Your task to perform on an android device: toggle wifi Image 0: 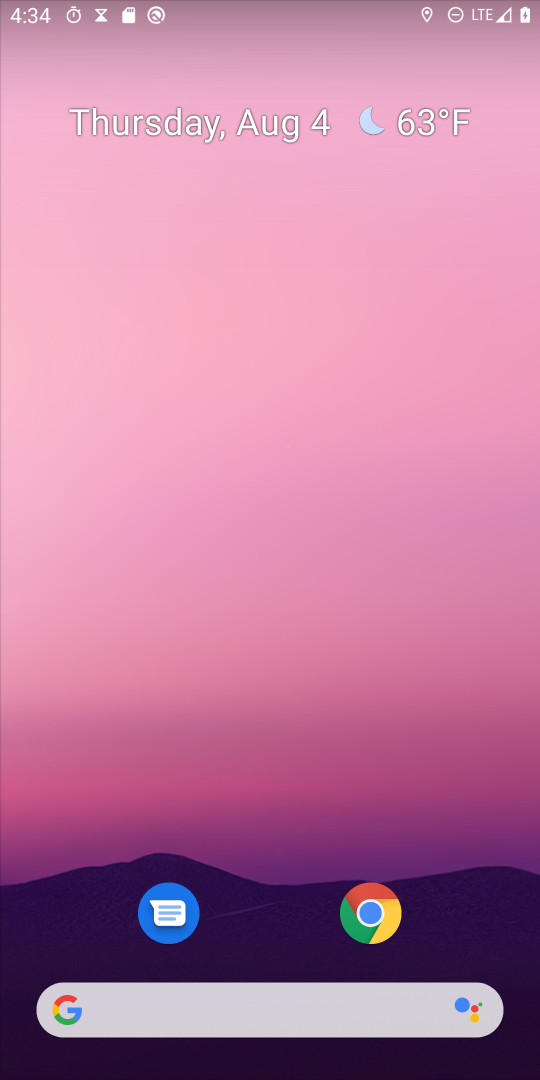
Step 0: drag from (360, 984) to (489, 49)
Your task to perform on an android device: toggle wifi Image 1: 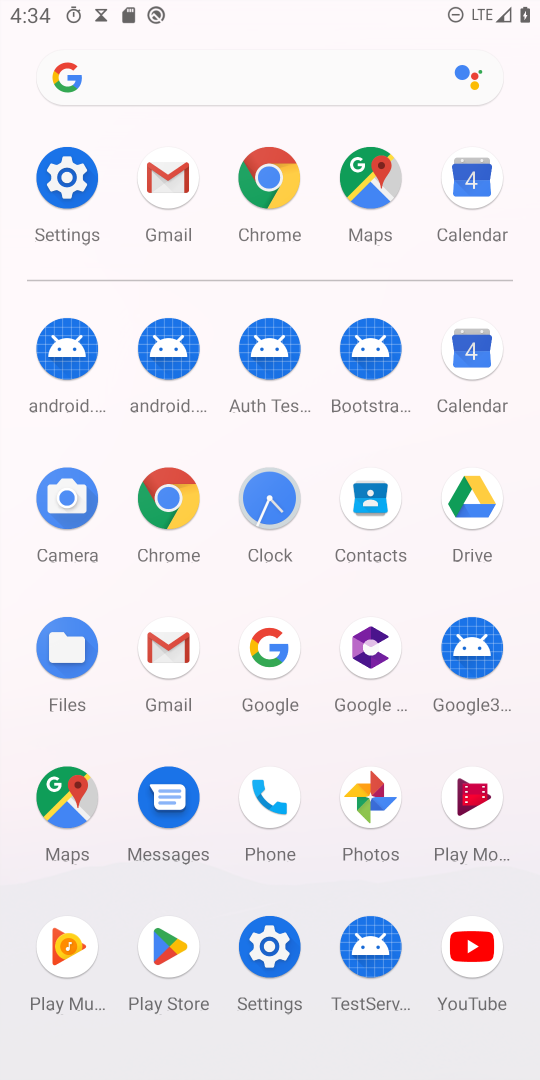
Step 1: click (58, 190)
Your task to perform on an android device: toggle wifi Image 2: 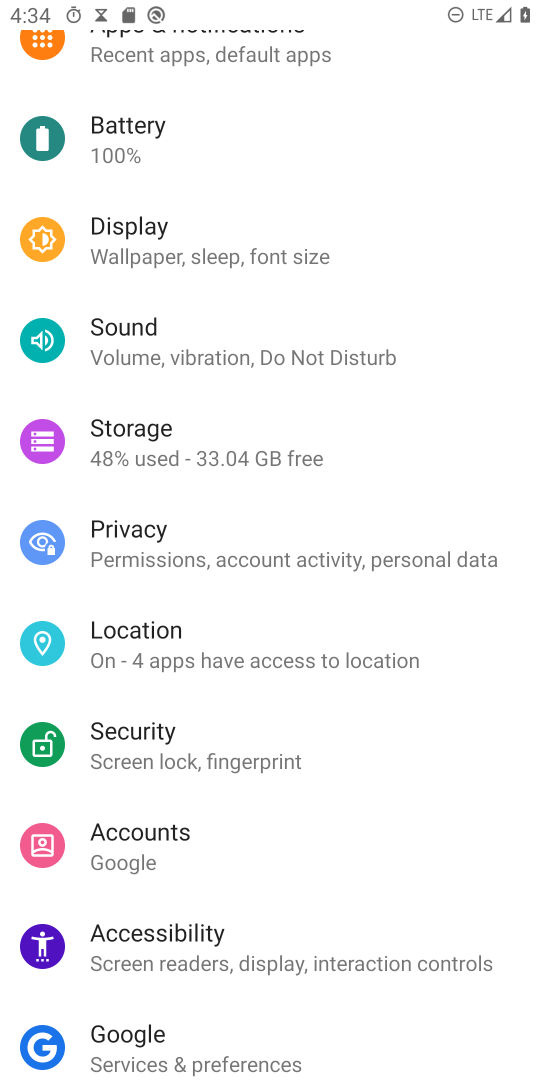
Step 2: drag from (239, 143) to (237, 495)
Your task to perform on an android device: toggle wifi Image 3: 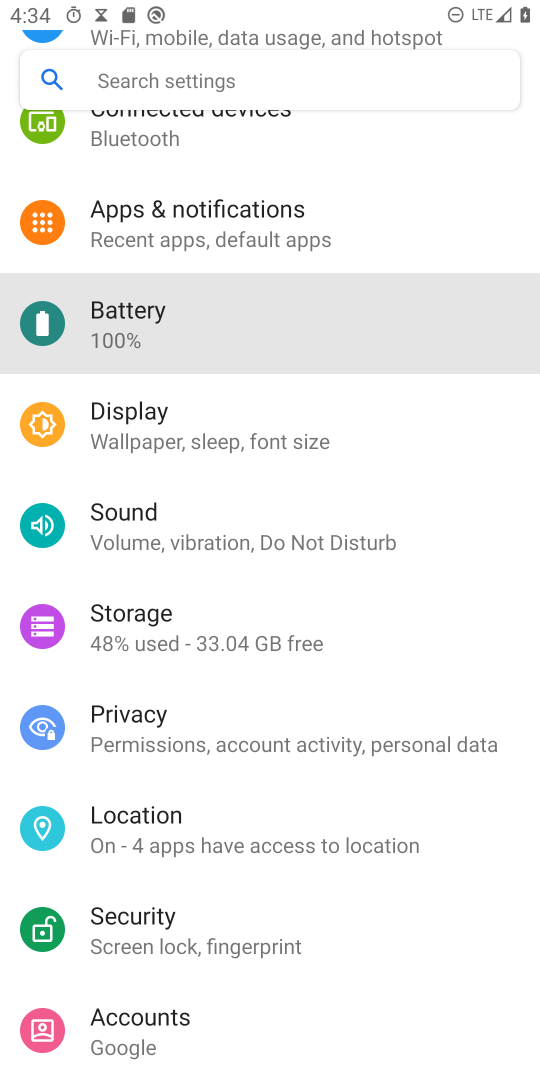
Step 3: click (315, 903)
Your task to perform on an android device: toggle wifi Image 4: 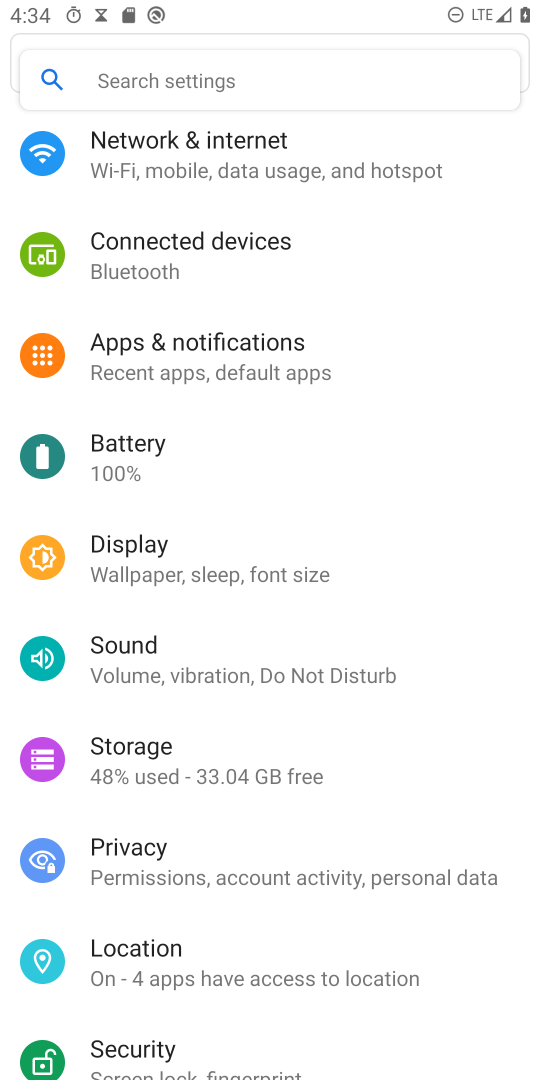
Step 4: click (336, 183)
Your task to perform on an android device: toggle wifi Image 5: 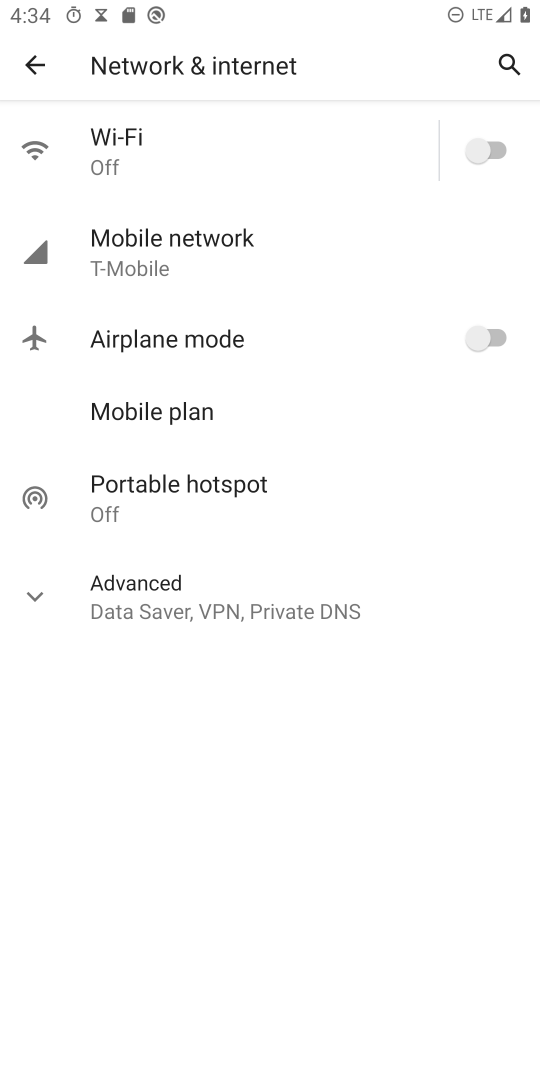
Step 5: click (492, 146)
Your task to perform on an android device: toggle wifi Image 6: 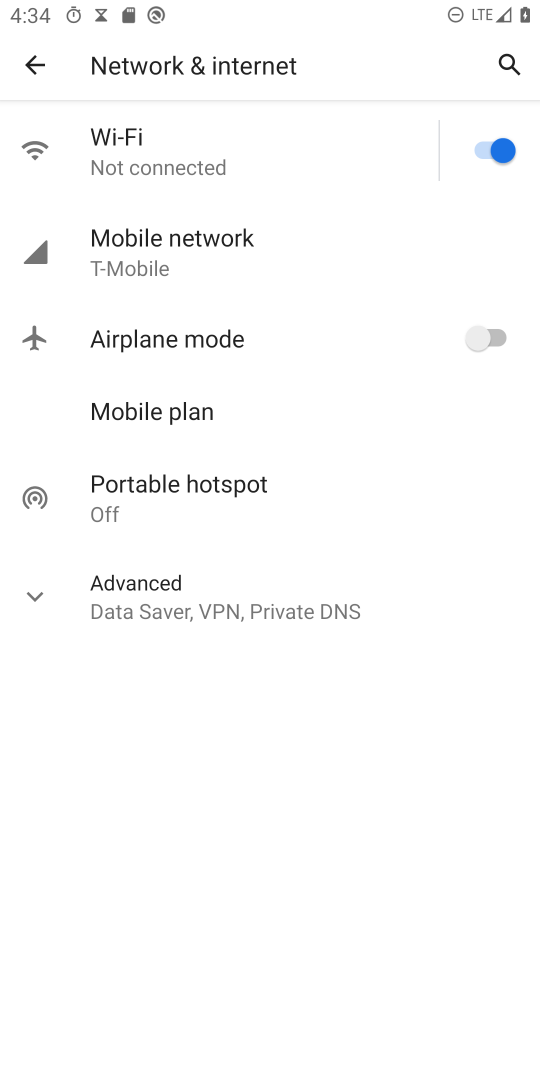
Step 6: task complete